Your task to perform on an android device: Open notification settings Image 0: 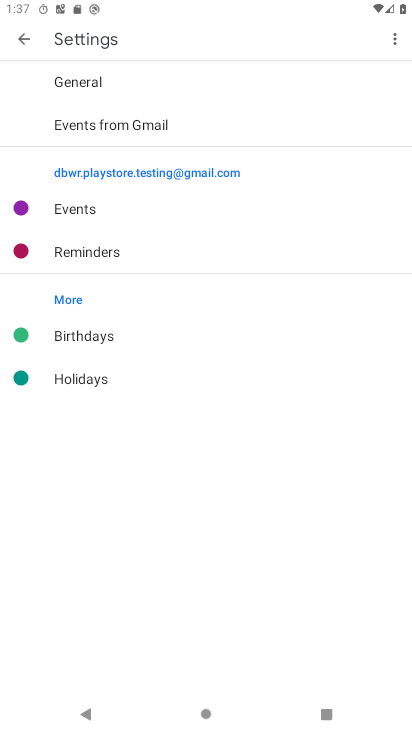
Step 0: drag from (385, 704) to (339, 174)
Your task to perform on an android device: Open notification settings Image 1: 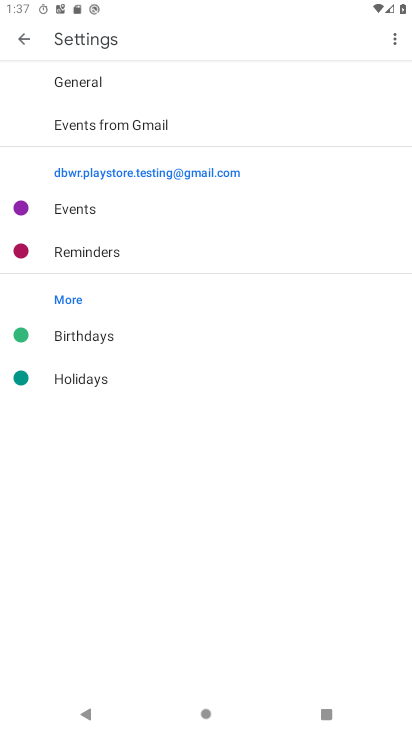
Step 1: drag from (390, 709) to (367, 126)
Your task to perform on an android device: Open notification settings Image 2: 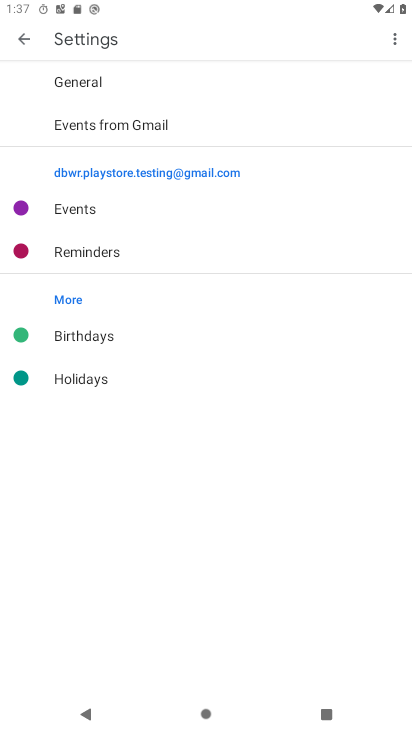
Step 2: press home button
Your task to perform on an android device: Open notification settings Image 3: 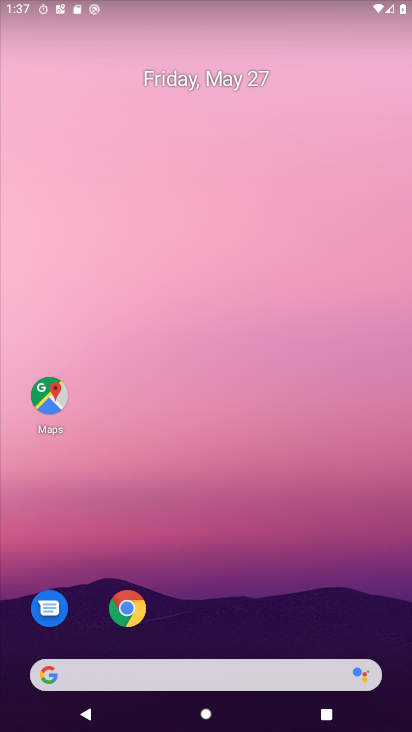
Step 3: drag from (399, 723) to (360, 375)
Your task to perform on an android device: Open notification settings Image 4: 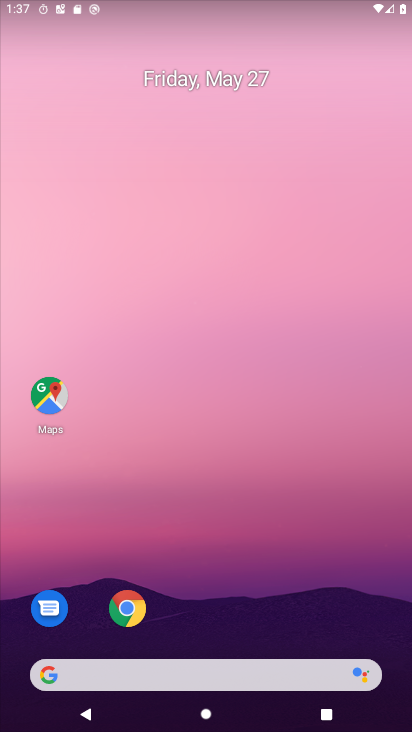
Step 4: drag from (401, 713) to (339, 161)
Your task to perform on an android device: Open notification settings Image 5: 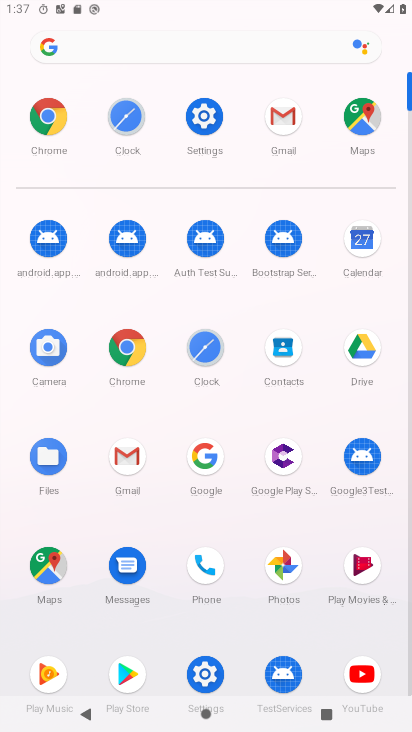
Step 5: click (206, 127)
Your task to perform on an android device: Open notification settings Image 6: 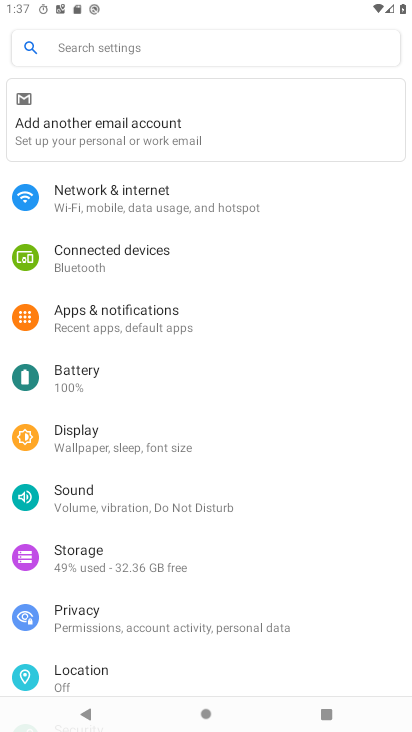
Step 6: click (96, 322)
Your task to perform on an android device: Open notification settings Image 7: 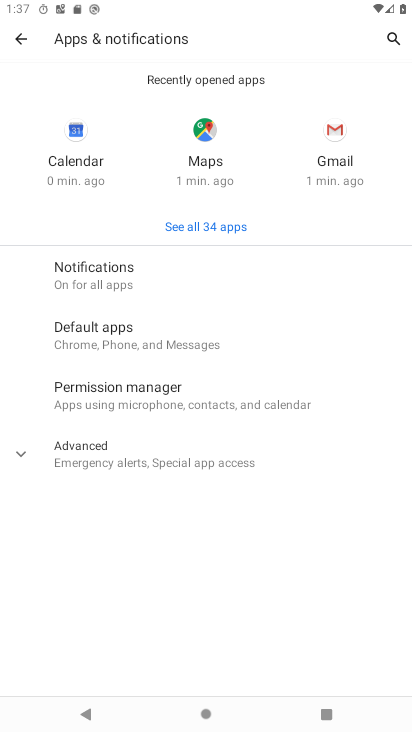
Step 7: click (118, 274)
Your task to perform on an android device: Open notification settings Image 8: 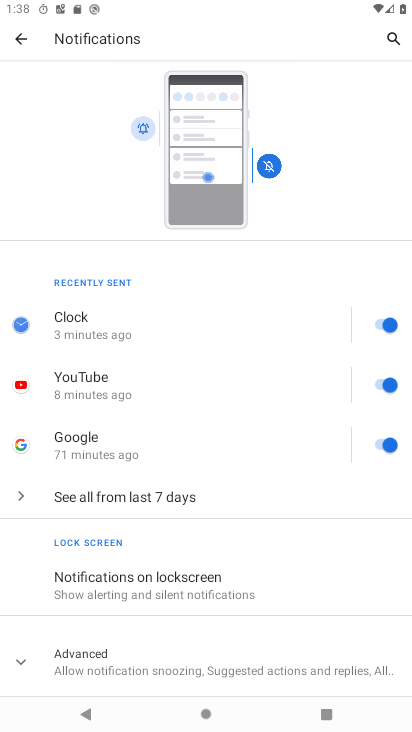
Step 8: task complete